Your task to perform on an android device: turn off wifi Image 0: 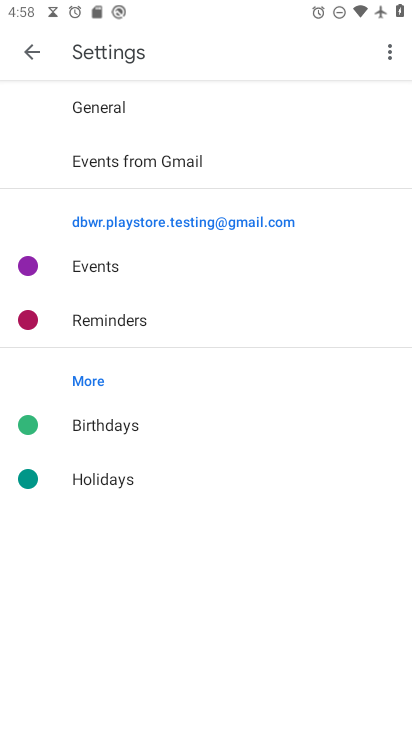
Step 0: press back button
Your task to perform on an android device: turn off wifi Image 1: 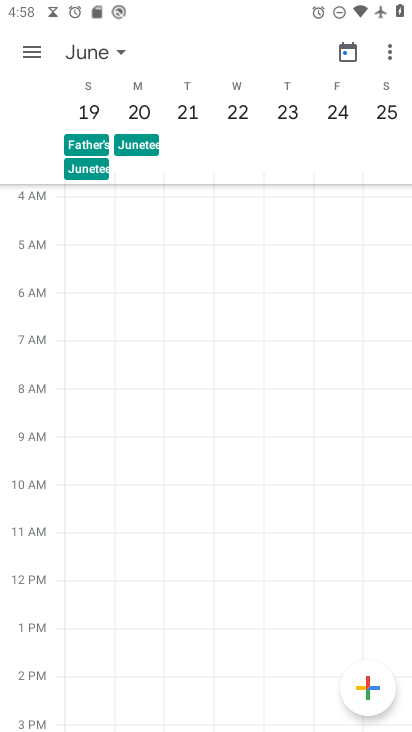
Step 1: press back button
Your task to perform on an android device: turn off wifi Image 2: 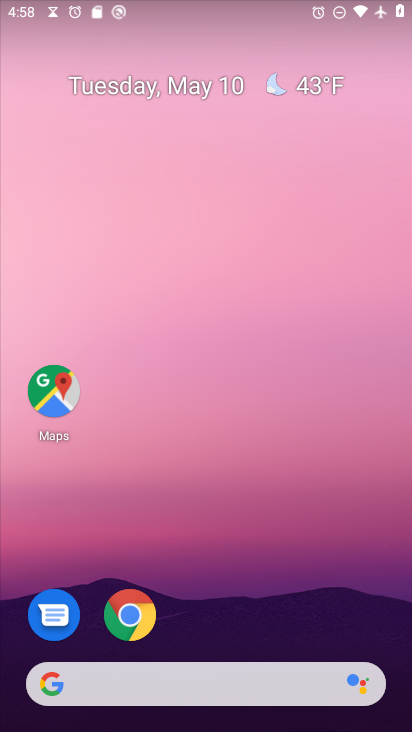
Step 2: drag from (184, 619) to (202, 48)
Your task to perform on an android device: turn off wifi Image 3: 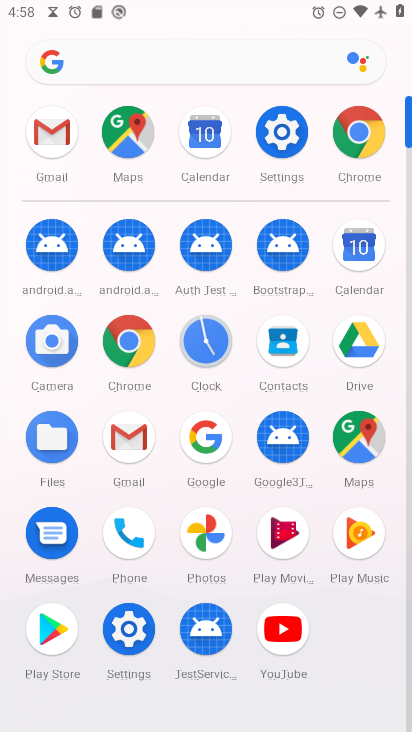
Step 3: click (282, 130)
Your task to perform on an android device: turn off wifi Image 4: 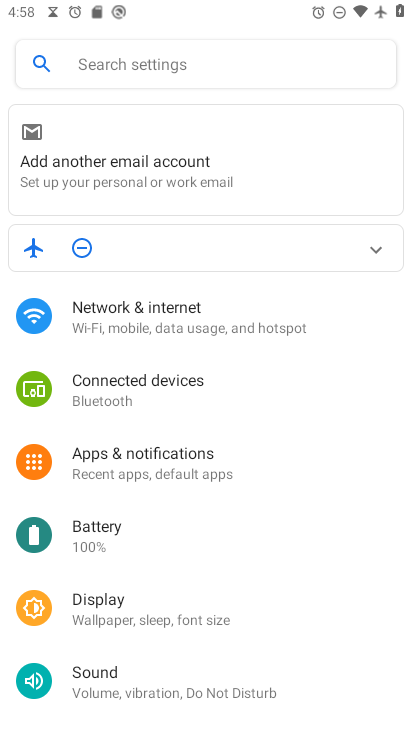
Step 4: click (203, 321)
Your task to perform on an android device: turn off wifi Image 5: 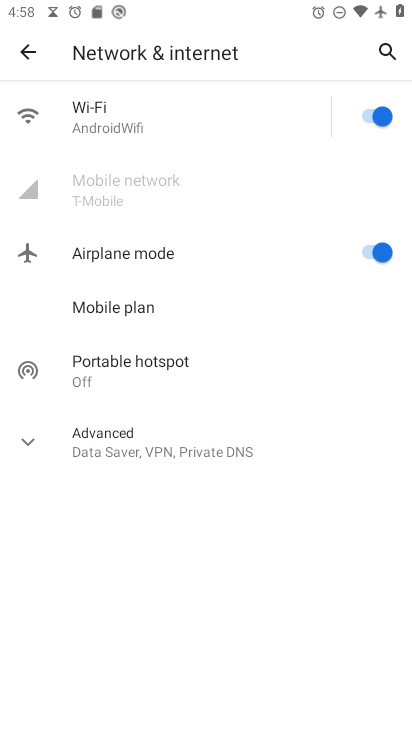
Step 5: click (366, 109)
Your task to perform on an android device: turn off wifi Image 6: 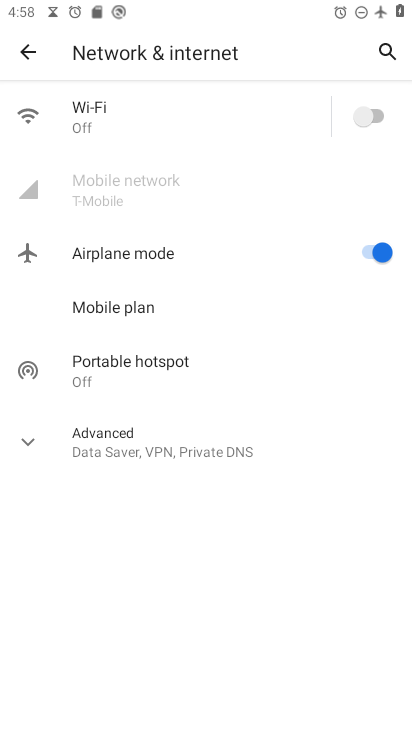
Step 6: task complete